Your task to perform on an android device: allow notifications from all sites in the chrome app Image 0: 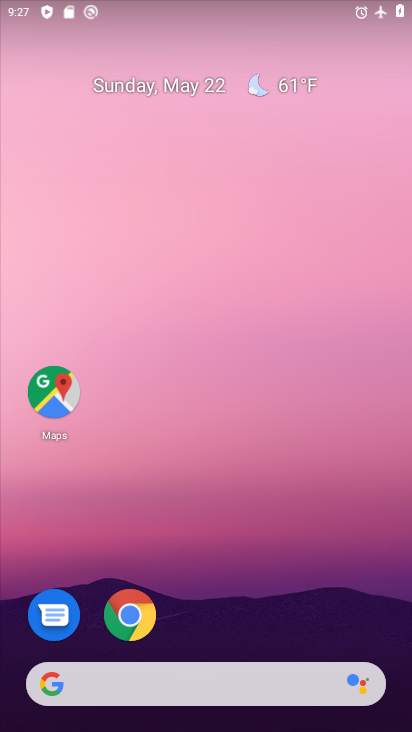
Step 0: click (148, 623)
Your task to perform on an android device: allow notifications from all sites in the chrome app Image 1: 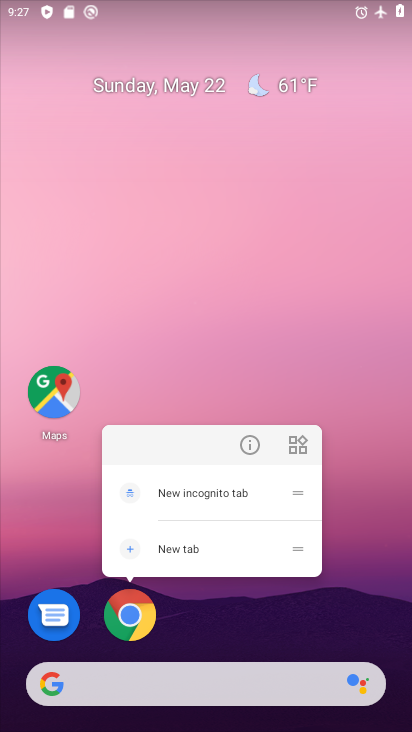
Step 1: click (134, 620)
Your task to perform on an android device: allow notifications from all sites in the chrome app Image 2: 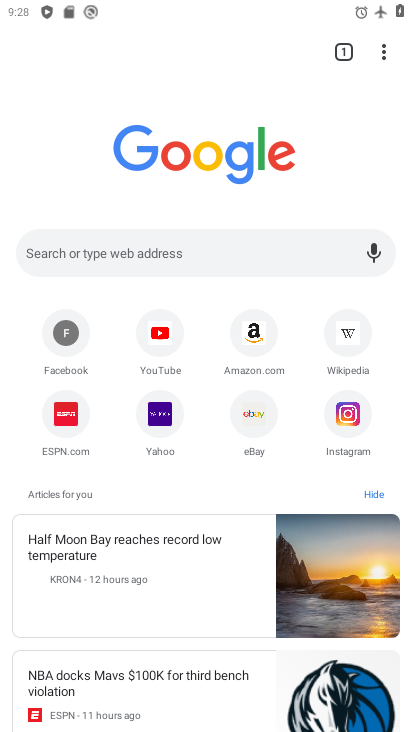
Step 2: drag from (383, 58) to (218, 430)
Your task to perform on an android device: allow notifications from all sites in the chrome app Image 3: 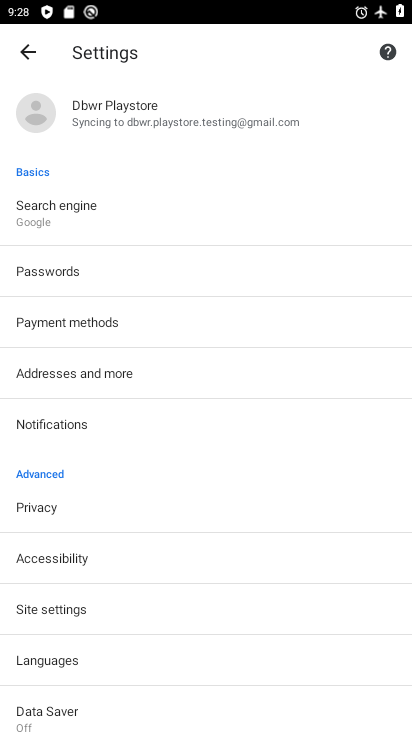
Step 3: drag from (136, 695) to (110, 263)
Your task to perform on an android device: allow notifications from all sites in the chrome app Image 4: 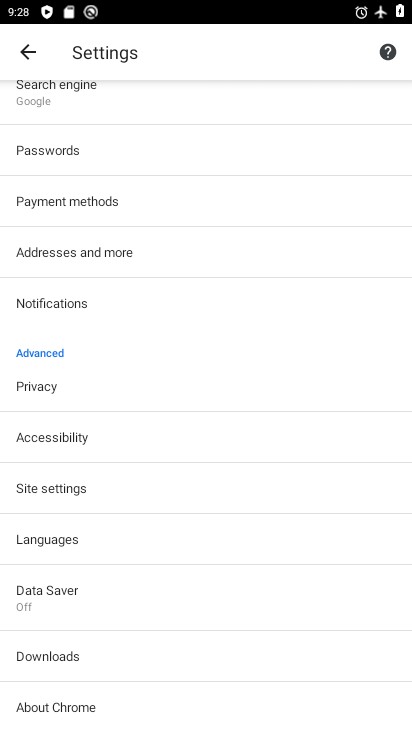
Step 4: click (56, 490)
Your task to perform on an android device: allow notifications from all sites in the chrome app Image 5: 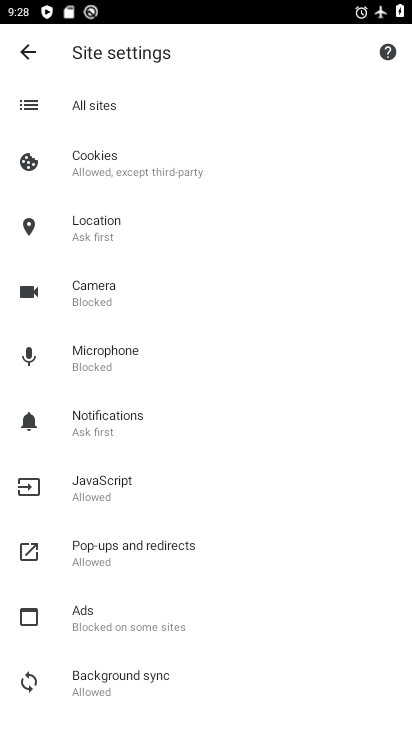
Step 5: click (127, 428)
Your task to perform on an android device: allow notifications from all sites in the chrome app Image 6: 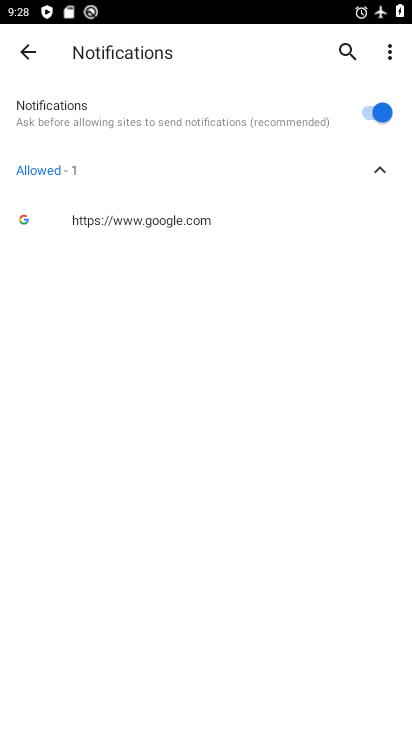
Step 6: task complete